Your task to perform on an android device: turn off improve location accuracy Image 0: 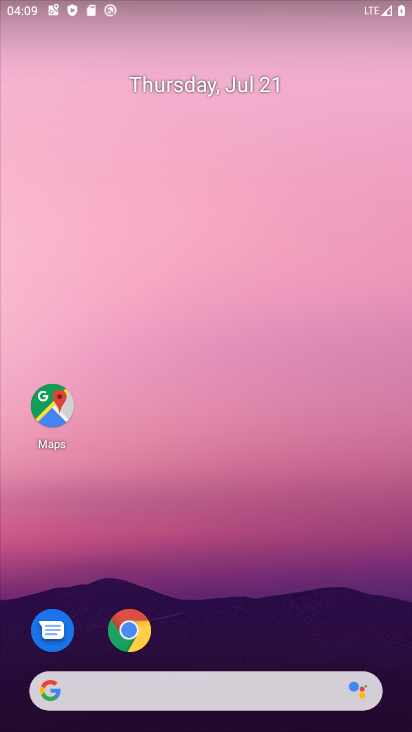
Step 0: drag from (213, 638) to (165, 128)
Your task to perform on an android device: turn off improve location accuracy Image 1: 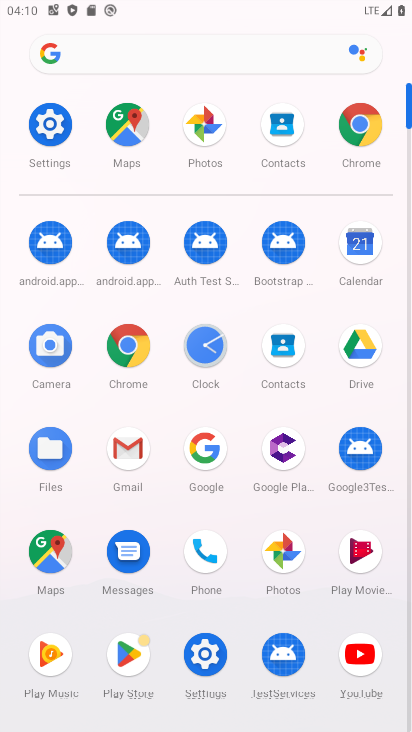
Step 1: click (209, 634)
Your task to perform on an android device: turn off improve location accuracy Image 2: 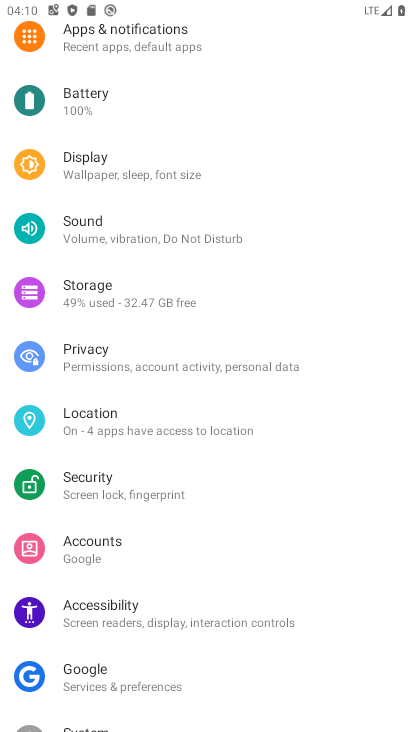
Step 2: click (105, 409)
Your task to perform on an android device: turn off improve location accuracy Image 3: 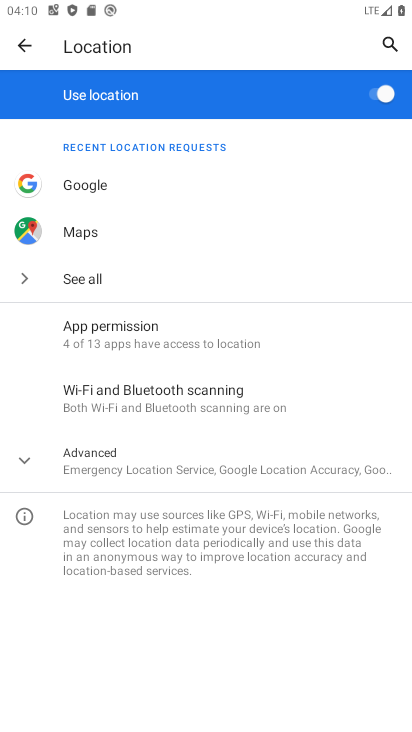
Step 3: click (120, 457)
Your task to perform on an android device: turn off improve location accuracy Image 4: 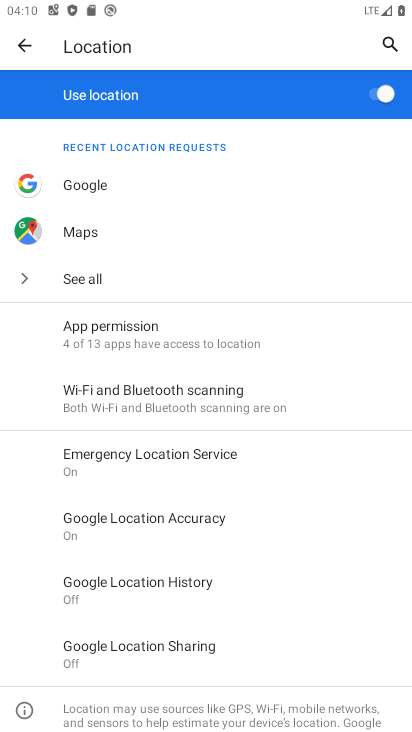
Step 4: click (217, 533)
Your task to perform on an android device: turn off improve location accuracy Image 5: 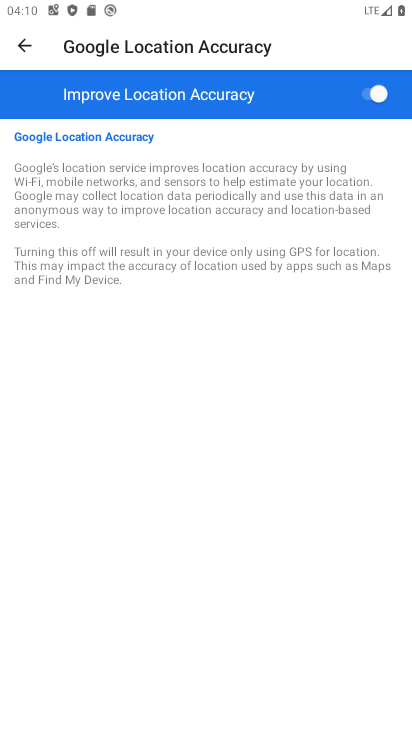
Step 5: click (381, 96)
Your task to perform on an android device: turn off improve location accuracy Image 6: 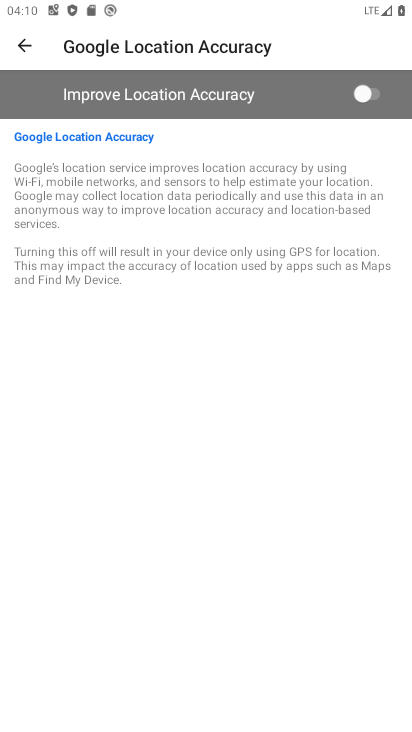
Step 6: task complete